Your task to perform on an android device: Do I have any events tomorrow? Image 0: 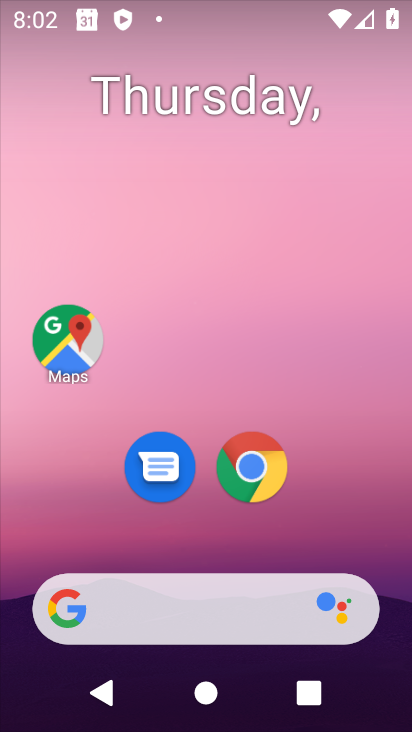
Step 0: drag from (200, 532) to (258, 57)
Your task to perform on an android device: Do I have any events tomorrow? Image 1: 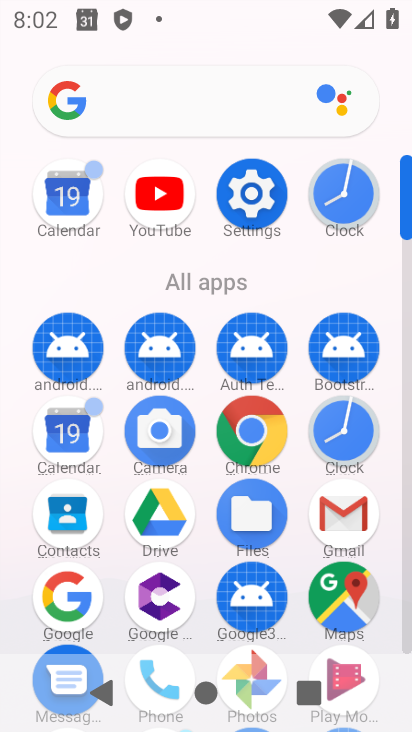
Step 1: click (52, 438)
Your task to perform on an android device: Do I have any events tomorrow? Image 2: 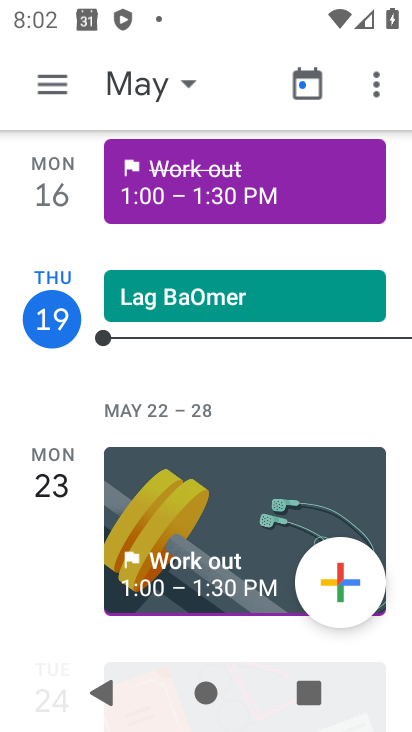
Step 2: task complete